Your task to perform on an android device: Go to Google Image 0: 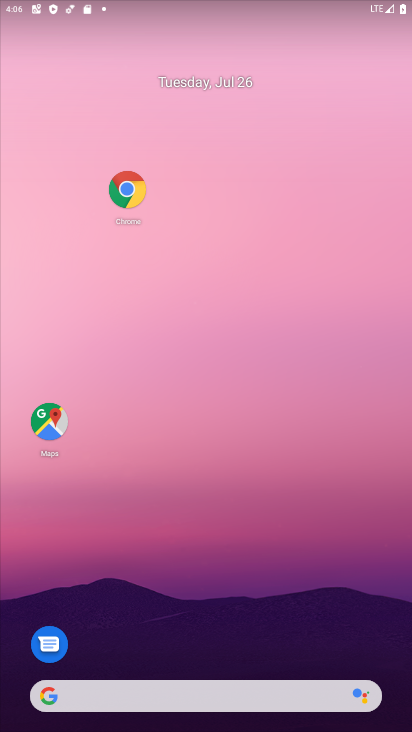
Step 0: click (218, 244)
Your task to perform on an android device: Go to Google Image 1: 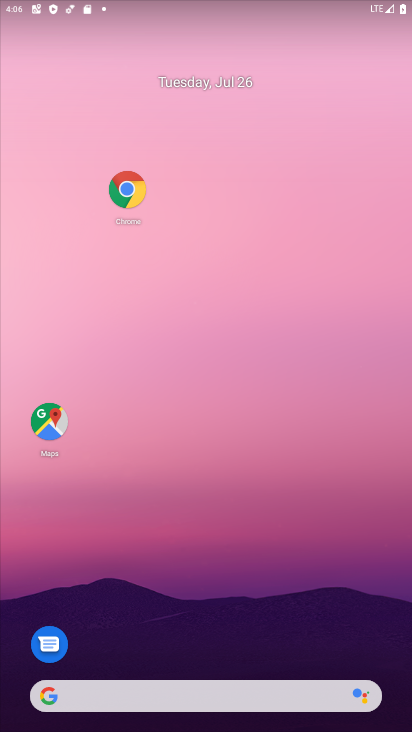
Step 1: drag from (184, 676) to (181, 143)
Your task to perform on an android device: Go to Google Image 2: 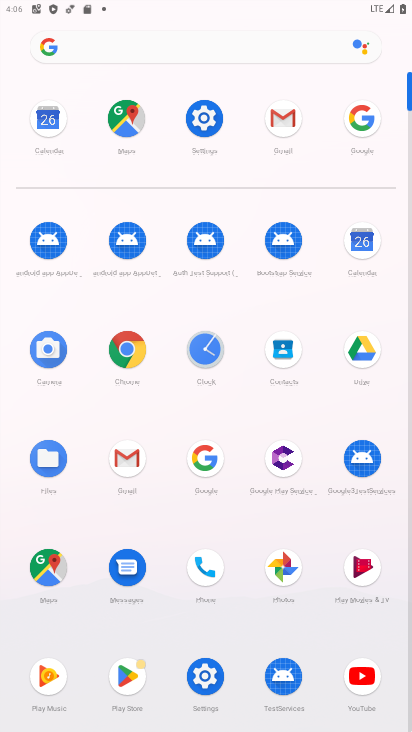
Step 2: click (200, 447)
Your task to perform on an android device: Go to Google Image 3: 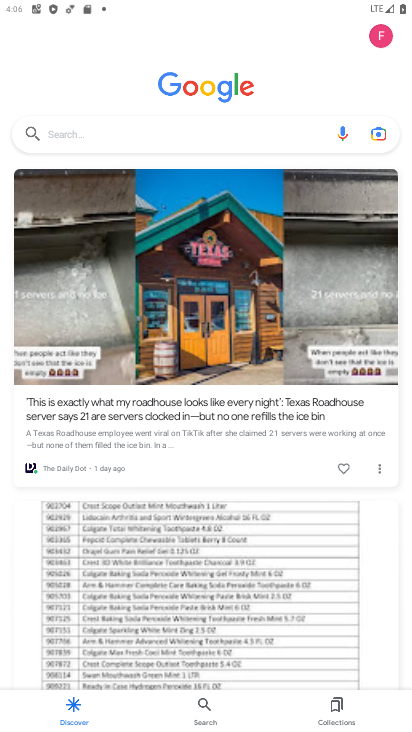
Step 3: task complete